Your task to perform on an android device: Open calendar and show me the third week of next month Image 0: 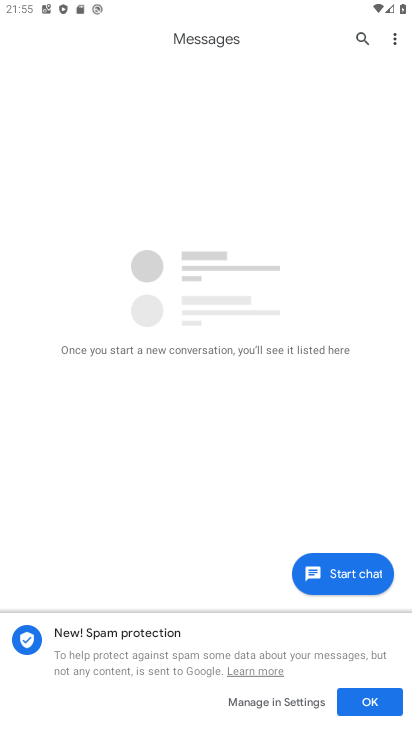
Step 0: press home button
Your task to perform on an android device: Open calendar and show me the third week of next month Image 1: 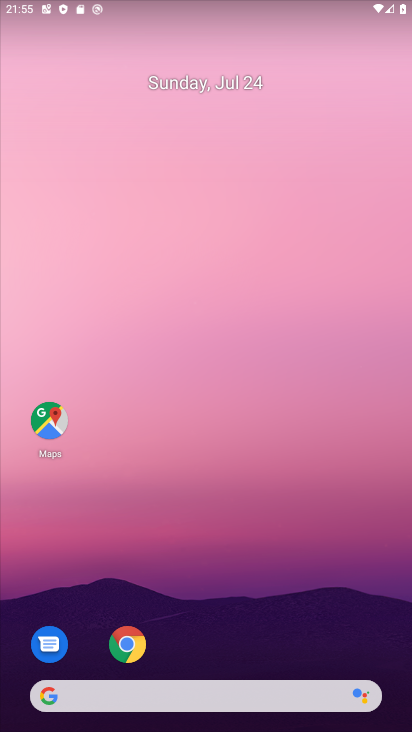
Step 1: drag from (368, 647) to (338, 127)
Your task to perform on an android device: Open calendar and show me the third week of next month Image 2: 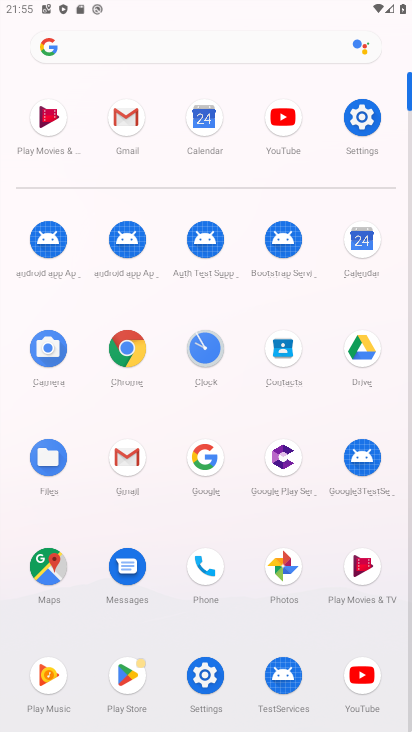
Step 2: click (356, 238)
Your task to perform on an android device: Open calendar and show me the third week of next month Image 3: 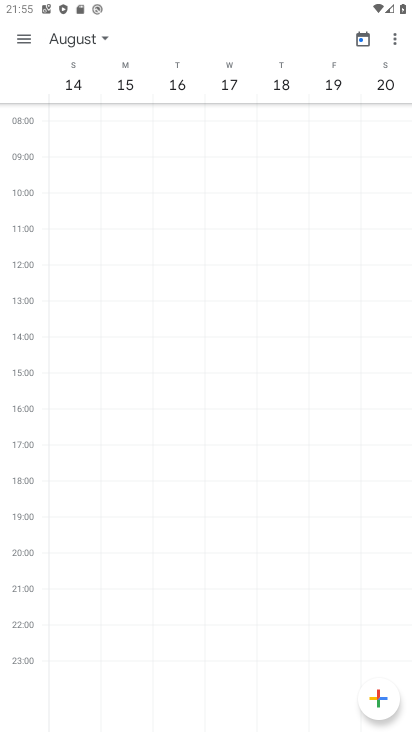
Step 3: click (28, 39)
Your task to perform on an android device: Open calendar and show me the third week of next month Image 4: 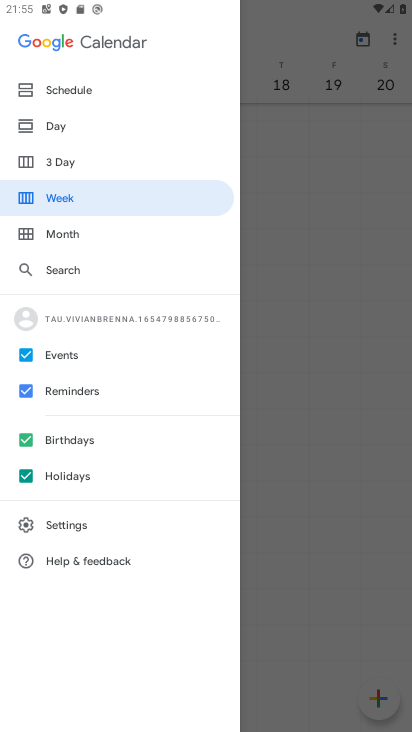
Step 4: click (68, 192)
Your task to perform on an android device: Open calendar and show me the third week of next month Image 5: 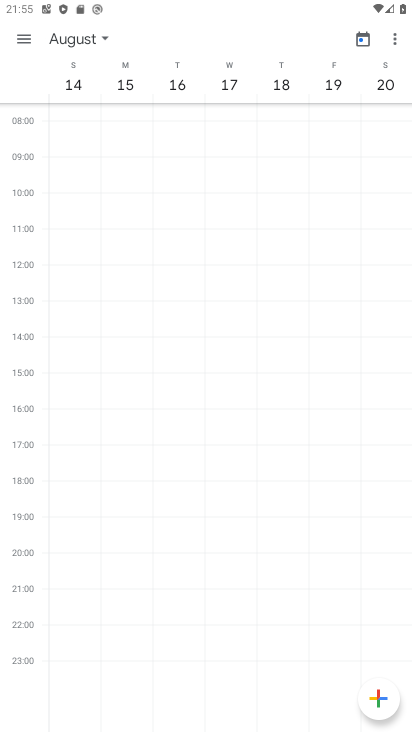
Step 5: click (106, 41)
Your task to perform on an android device: Open calendar and show me the third week of next month Image 6: 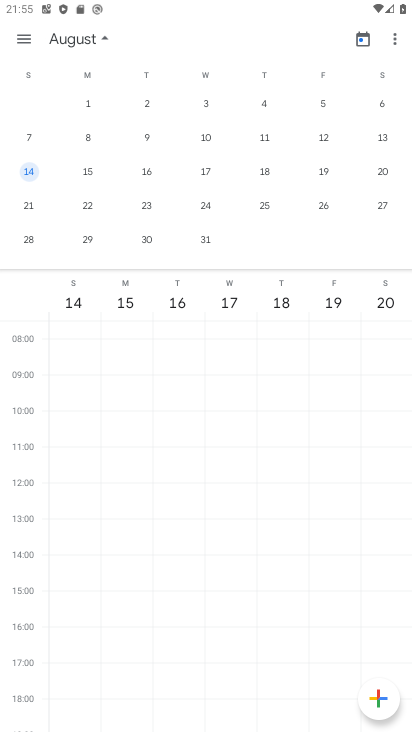
Step 6: click (29, 205)
Your task to perform on an android device: Open calendar and show me the third week of next month Image 7: 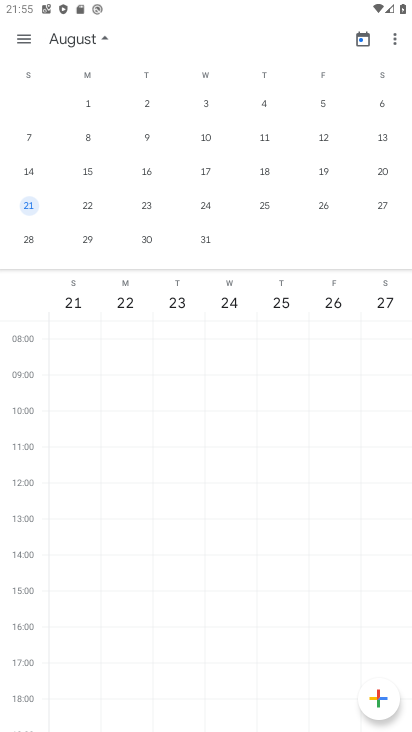
Step 7: task complete